Your task to perform on an android device: read, delete, or share a saved page in the chrome app Image 0: 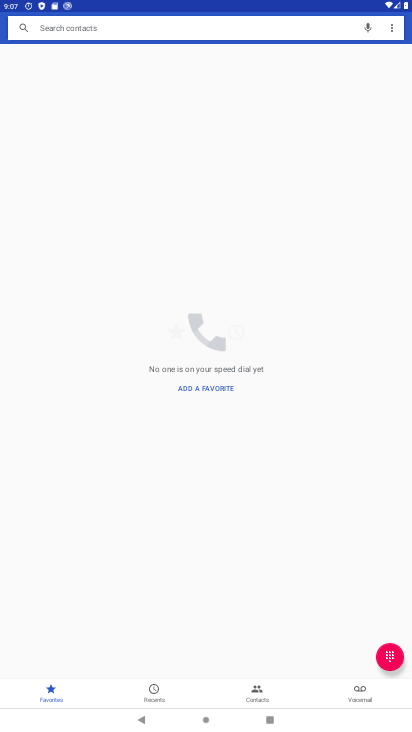
Step 0: press home button
Your task to perform on an android device: read, delete, or share a saved page in the chrome app Image 1: 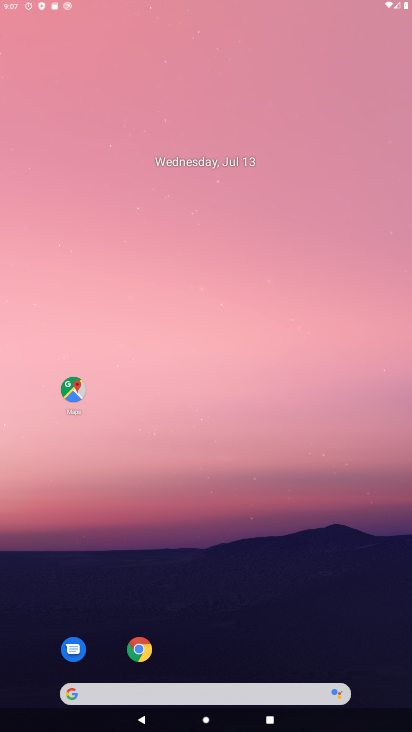
Step 1: drag from (274, 663) to (293, 69)
Your task to perform on an android device: read, delete, or share a saved page in the chrome app Image 2: 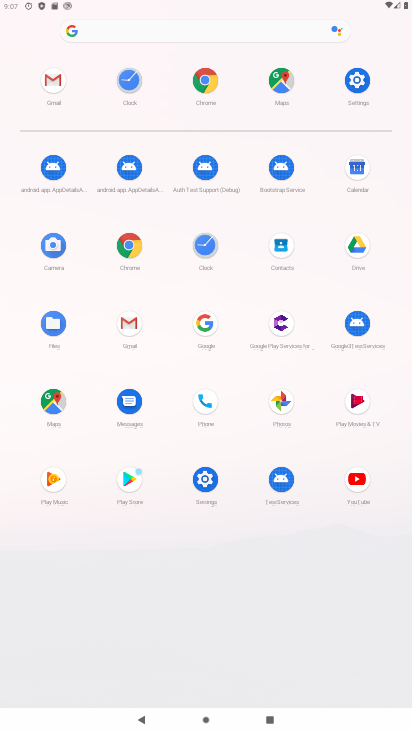
Step 2: click (124, 252)
Your task to perform on an android device: read, delete, or share a saved page in the chrome app Image 3: 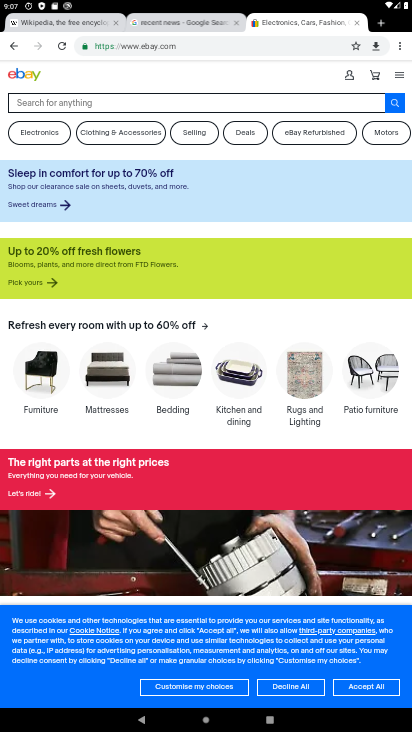
Step 3: task complete